Your task to perform on an android device: change timer sound Image 0: 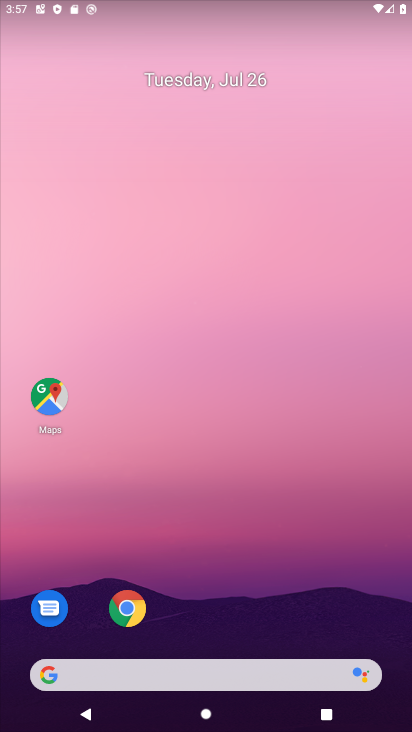
Step 0: drag from (244, 662) to (153, 164)
Your task to perform on an android device: change timer sound Image 1: 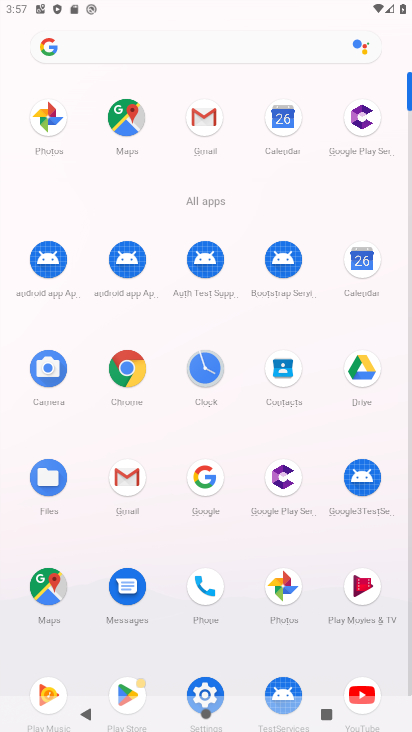
Step 1: click (200, 380)
Your task to perform on an android device: change timer sound Image 2: 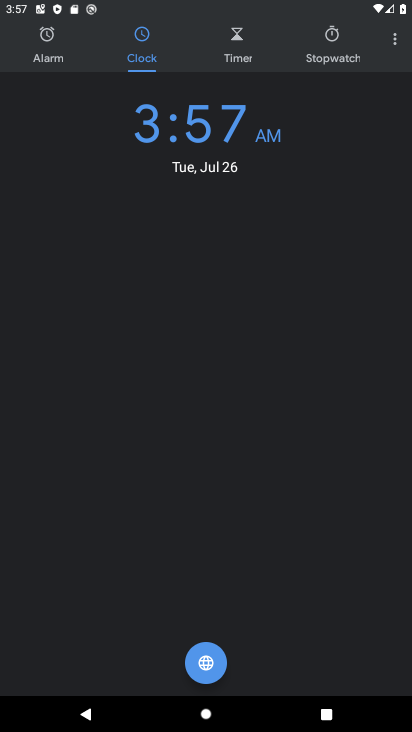
Step 2: click (384, 44)
Your task to perform on an android device: change timer sound Image 3: 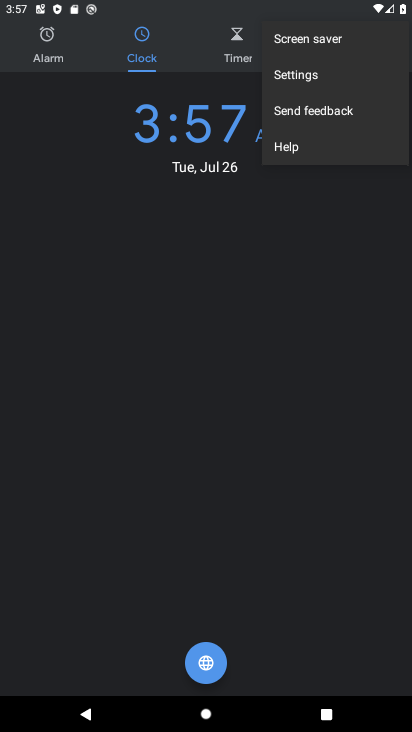
Step 3: click (318, 78)
Your task to perform on an android device: change timer sound Image 4: 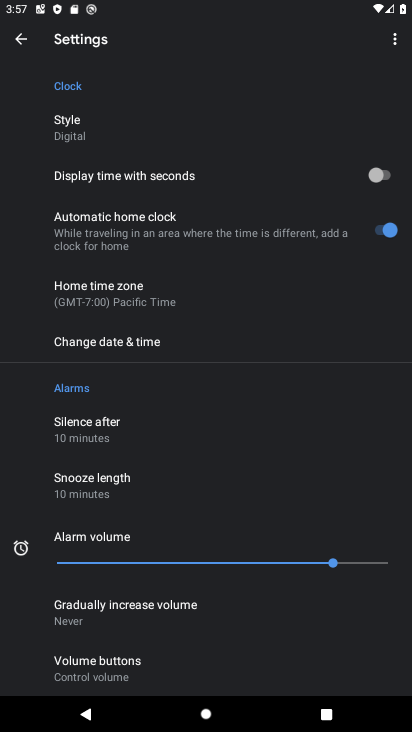
Step 4: click (105, 353)
Your task to perform on an android device: change timer sound Image 5: 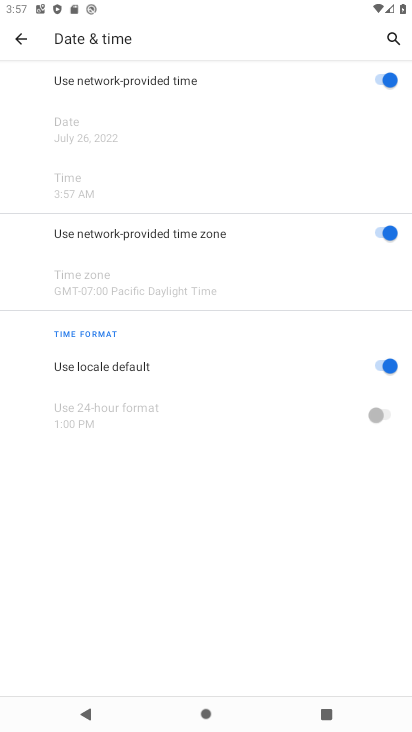
Step 5: click (21, 36)
Your task to perform on an android device: change timer sound Image 6: 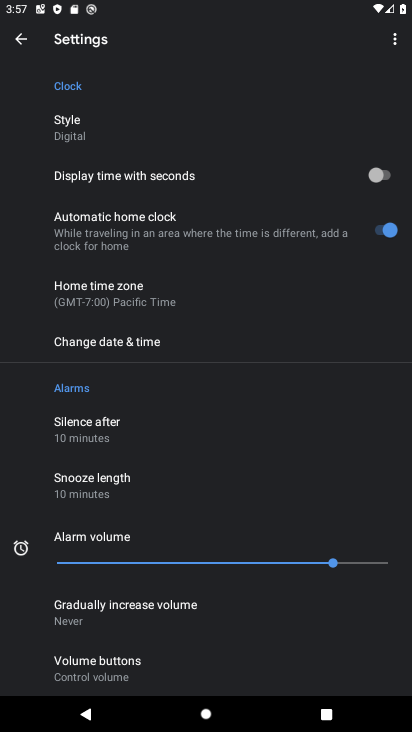
Step 6: drag from (122, 606) to (109, 240)
Your task to perform on an android device: change timer sound Image 7: 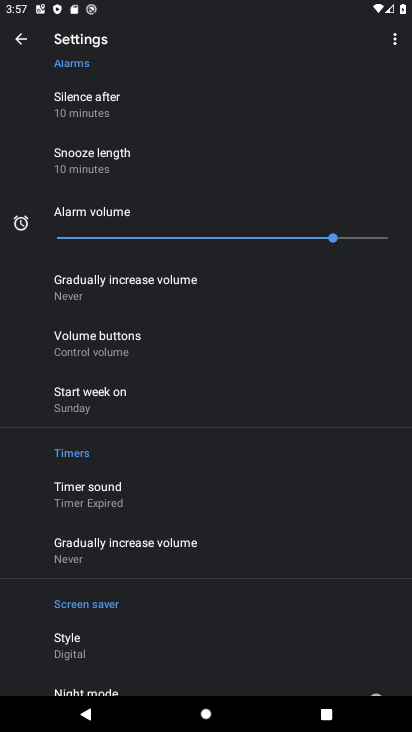
Step 7: click (89, 503)
Your task to perform on an android device: change timer sound Image 8: 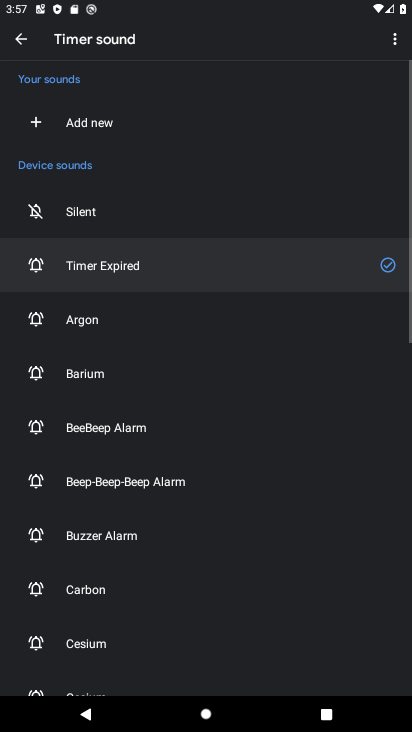
Step 8: click (98, 329)
Your task to perform on an android device: change timer sound Image 9: 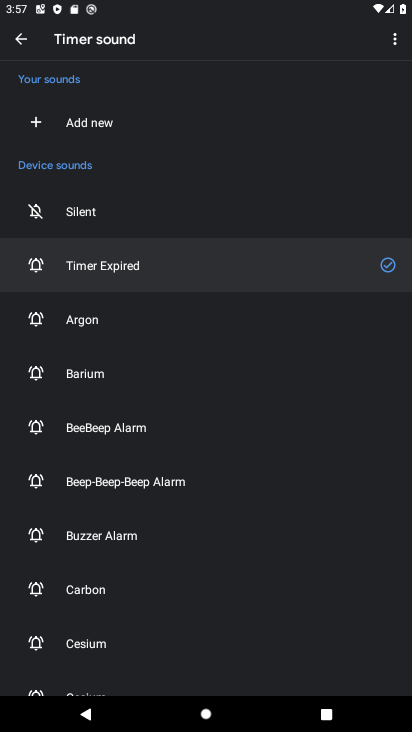
Step 9: task complete